Your task to perform on an android device: turn off sleep mode Image 0: 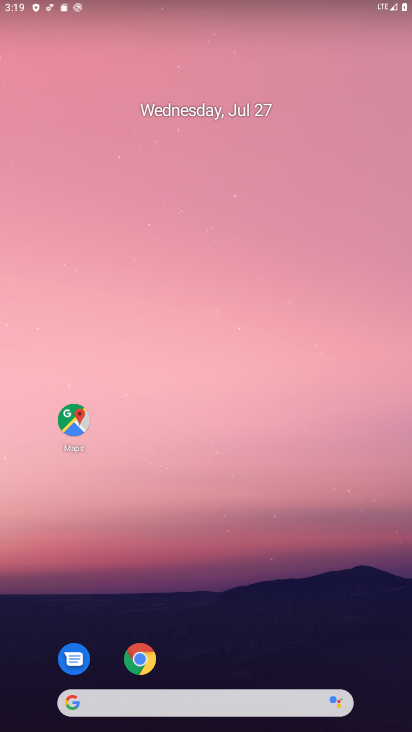
Step 0: drag from (236, 595) to (288, 73)
Your task to perform on an android device: turn off sleep mode Image 1: 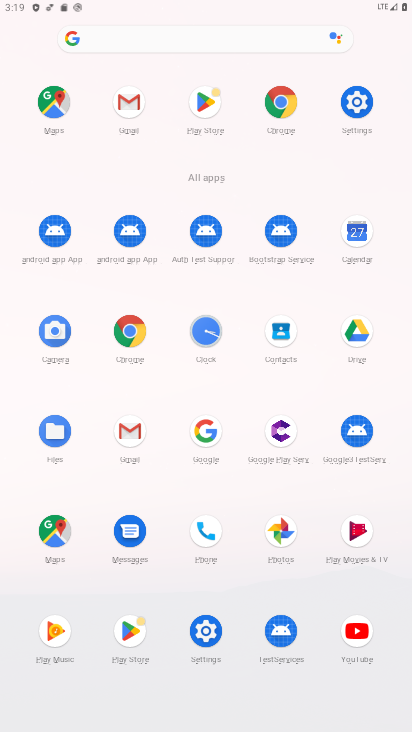
Step 1: click (366, 102)
Your task to perform on an android device: turn off sleep mode Image 2: 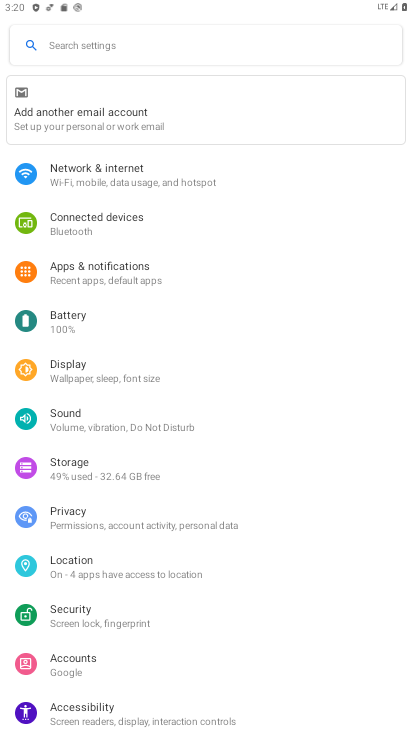
Step 2: click (68, 374)
Your task to perform on an android device: turn off sleep mode Image 3: 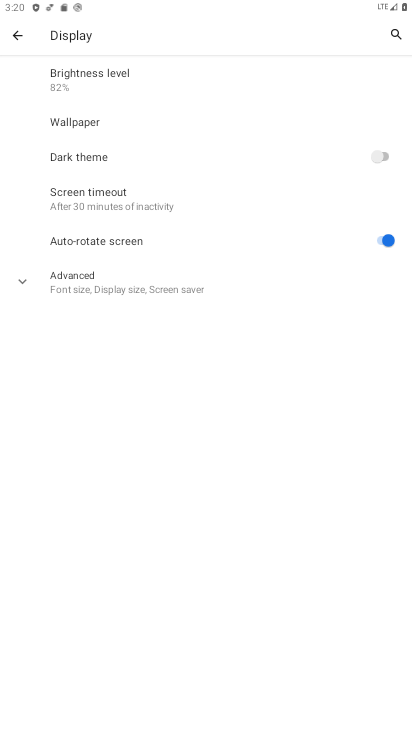
Step 3: click (25, 289)
Your task to perform on an android device: turn off sleep mode Image 4: 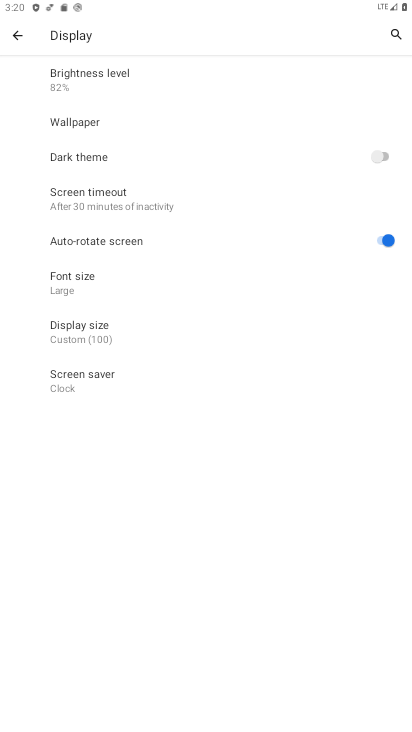
Step 4: task complete